Your task to perform on an android device: Set the phone to "Do not disturb". Image 0: 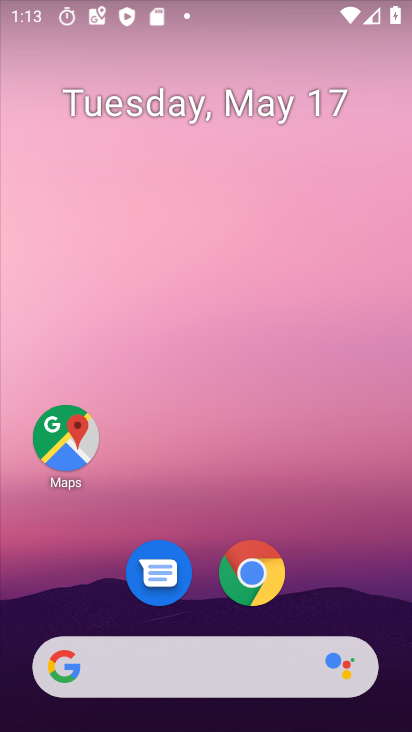
Step 0: drag from (200, 705) to (253, 116)
Your task to perform on an android device: Set the phone to "Do not disturb". Image 1: 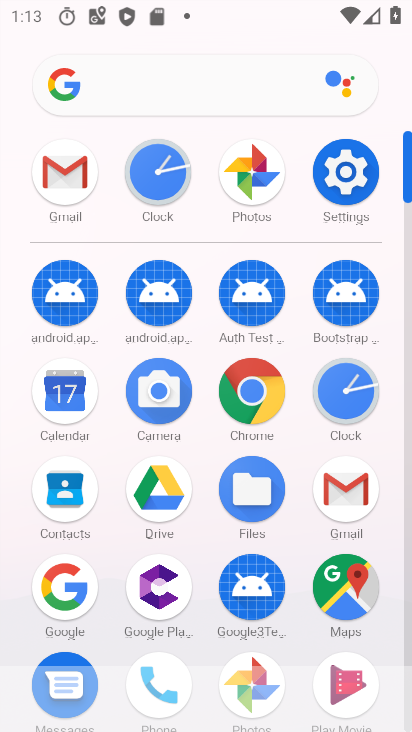
Step 1: click (342, 180)
Your task to perform on an android device: Set the phone to "Do not disturb". Image 2: 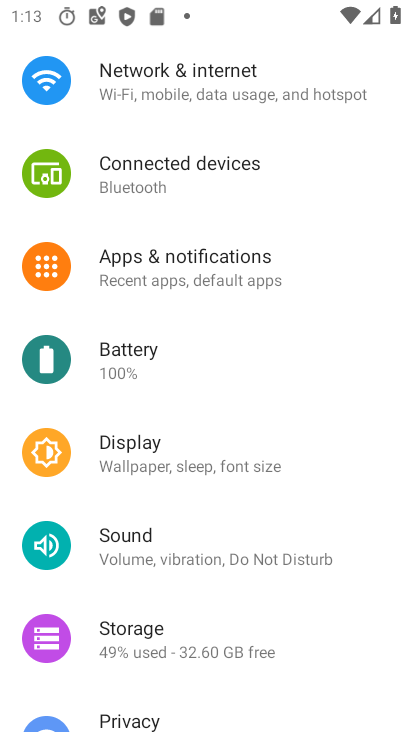
Step 2: click (253, 566)
Your task to perform on an android device: Set the phone to "Do not disturb". Image 3: 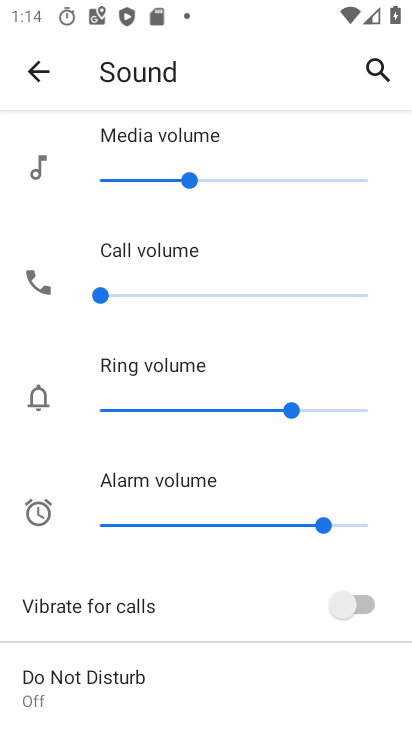
Step 3: task complete